Your task to perform on an android device: Open Youtube and go to "Your channel" Image 0: 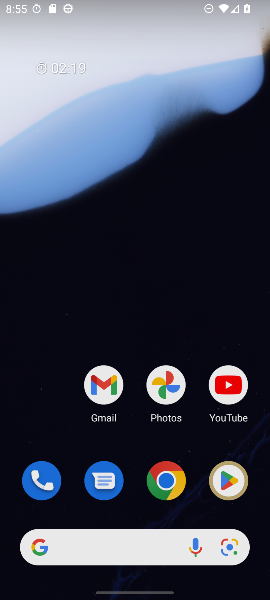
Step 0: press home button
Your task to perform on an android device: Open Youtube and go to "Your channel" Image 1: 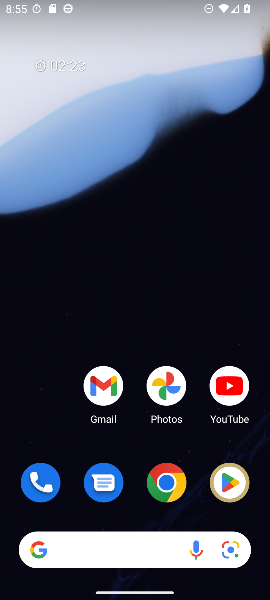
Step 1: click (231, 386)
Your task to perform on an android device: Open Youtube and go to "Your channel" Image 2: 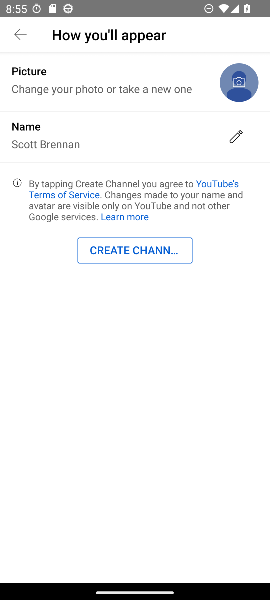
Step 2: task complete